Your task to perform on an android device: turn on the 24-hour format for clock Image 0: 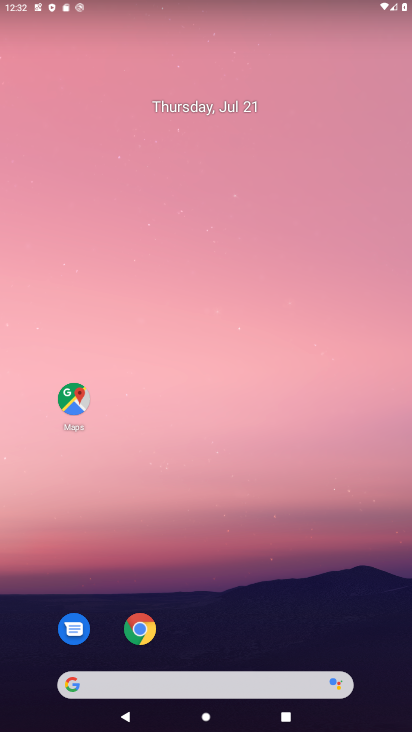
Step 0: drag from (258, 485) to (257, 103)
Your task to perform on an android device: turn on the 24-hour format for clock Image 1: 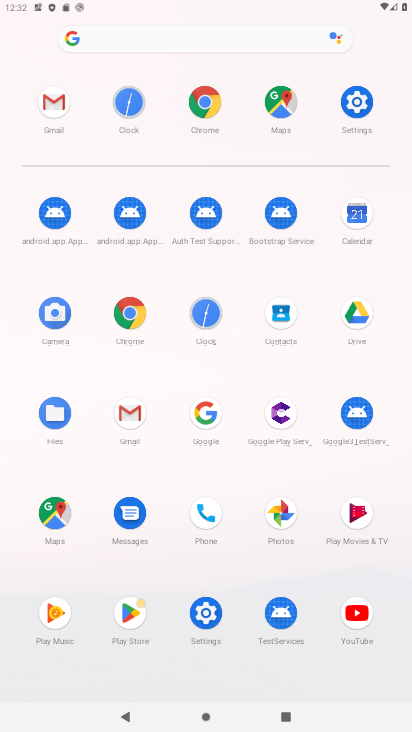
Step 1: click (212, 319)
Your task to perform on an android device: turn on the 24-hour format for clock Image 2: 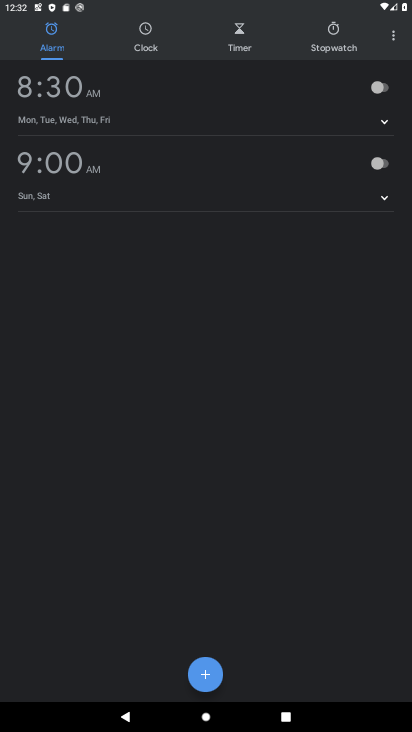
Step 2: click (399, 36)
Your task to perform on an android device: turn on the 24-hour format for clock Image 3: 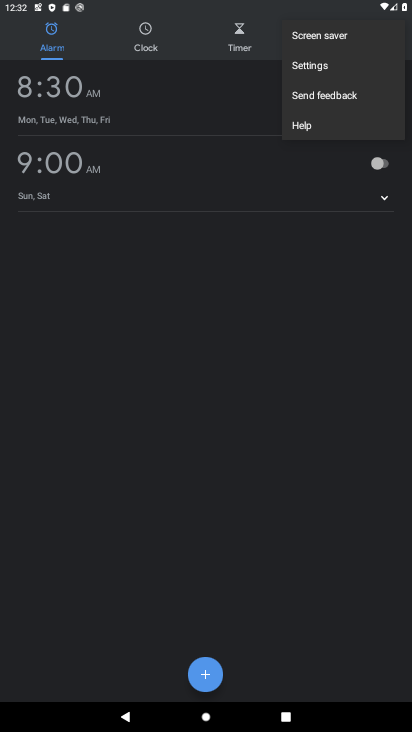
Step 3: click (331, 70)
Your task to perform on an android device: turn on the 24-hour format for clock Image 4: 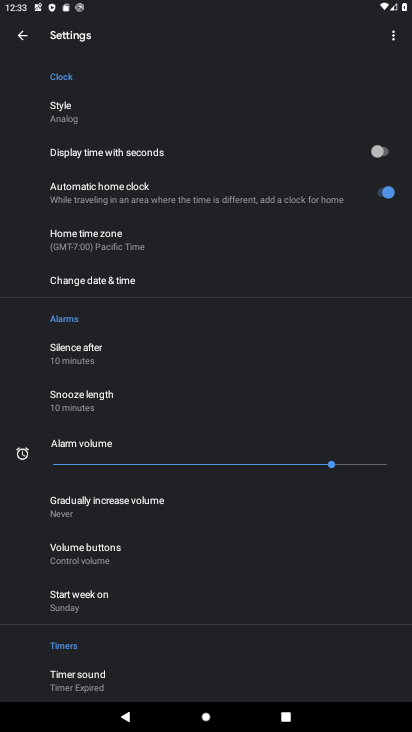
Step 4: click (116, 278)
Your task to perform on an android device: turn on the 24-hour format for clock Image 5: 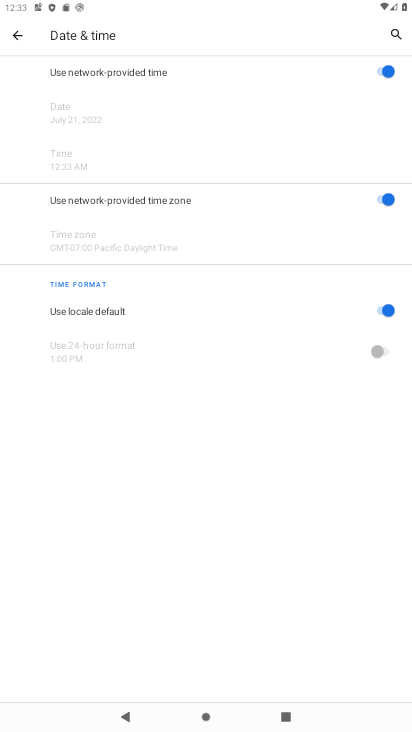
Step 5: click (388, 311)
Your task to perform on an android device: turn on the 24-hour format for clock Image 6: 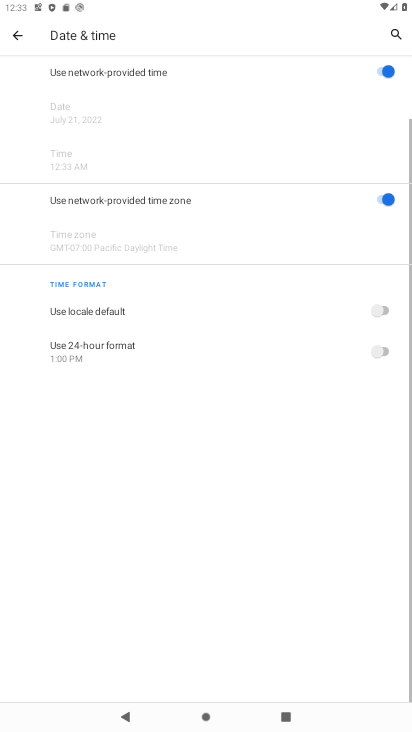
Step 6: click (380, 357)
Your task to perform on an android device: turn on the 24-hour format for clock Image 7: 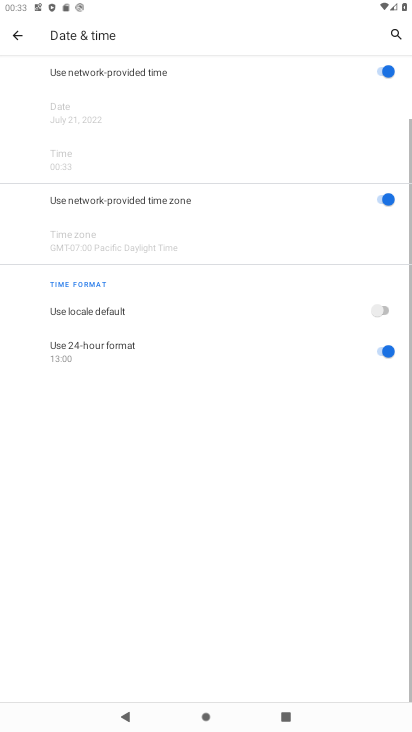
Step 7: task complete